Your task to perform on an android device: delete a single message in the gmail app Image 0: 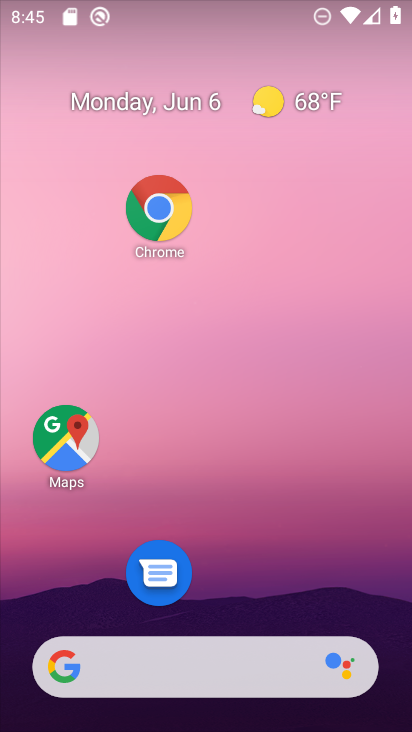
Step 0: drag from (263, 710) to (152, 102)
Your task to perform on an android device: delete a single message in the gmail app Image 1: 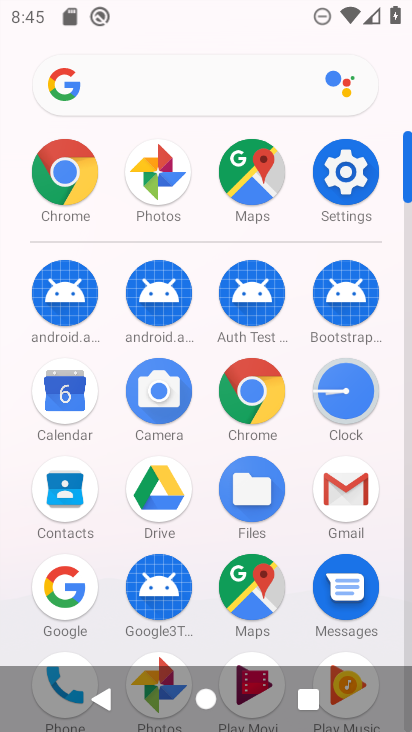
Step 1: click (337, 495)
Your task to perform on an android device: delete a single message in the gmail app Image 2: 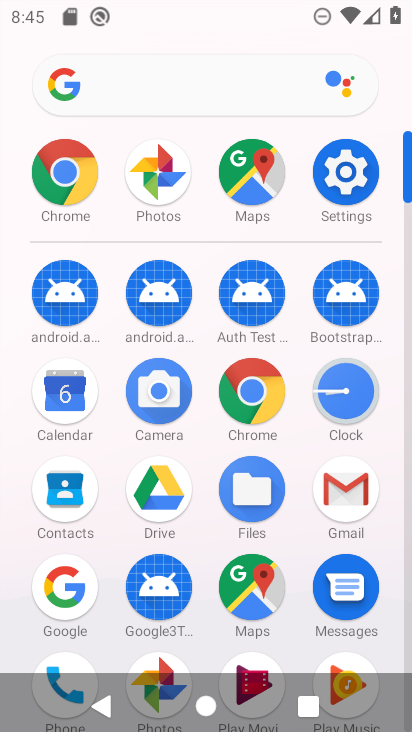
Step 2: click (343, 490)
Your task to perform on an android device: delete a single message in the gmail app Image 3: 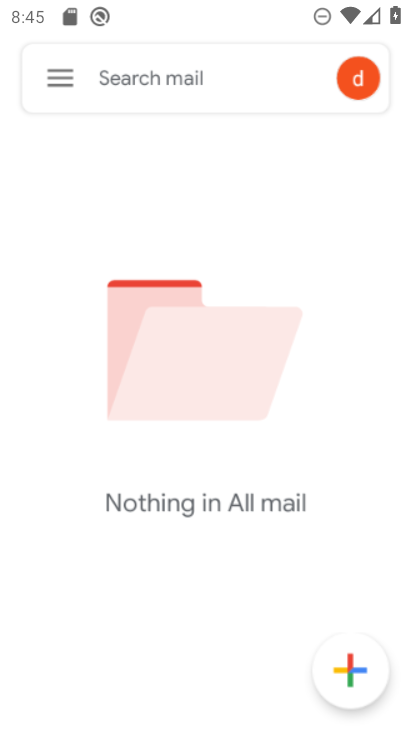
Step 3: click (343, 496)
Your task to perform on an android device: delete a single message in the gmail app Image 4: 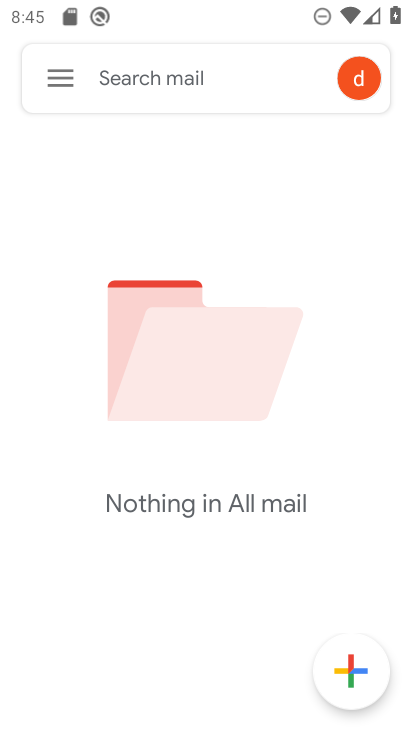
Step 4: click (342, 499)
Your task to perform on an android device: delete a single message in the gmail app Image 5: 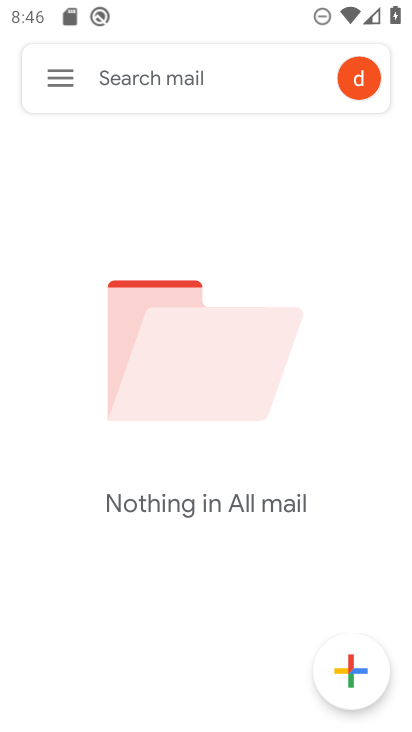
Step 5: task complete